Your task to perform on an android device: toggle priority inbox in the gmail app Image 0: 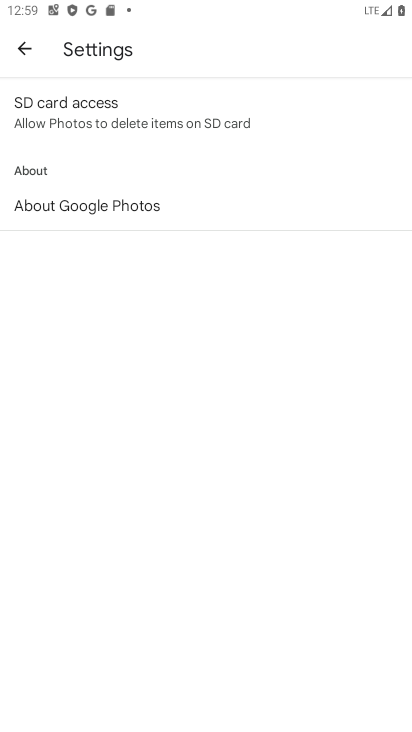
Step 0: press home button
Your task to perform on an android device: toggle priority inbox in the gmail app Image 1: 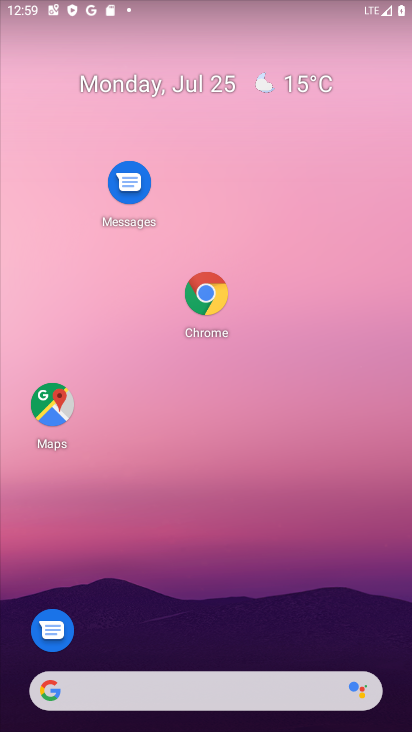
Step 1: drag from (287, 611) to (305, 58)
Your task to perform on an android device: toggle priority inbox in the gmail app Image 2: 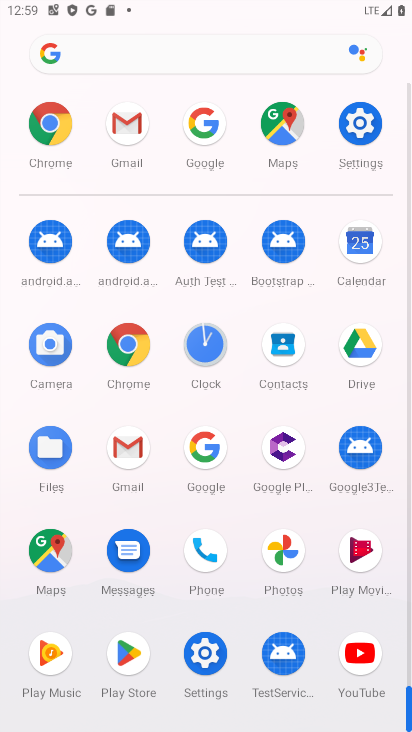
Step 2: click (134, 450)
Your task to perform on an android device: toggle priority inbox in the gmail app Image 3: 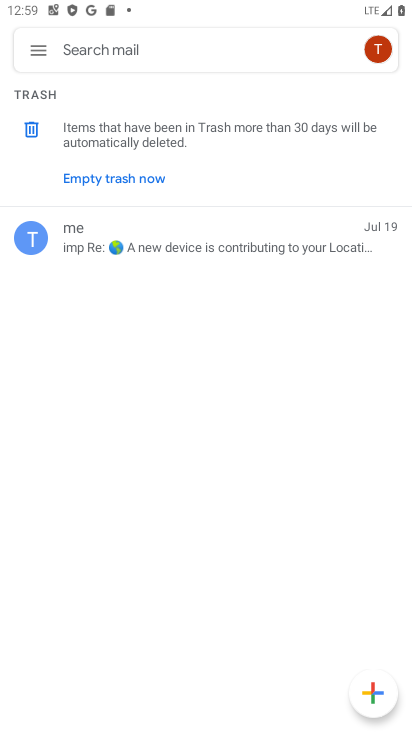
Step 3: click (42, 46)
Your task to perform on an android device: toggle priority inbox in the gmail app Image 4: 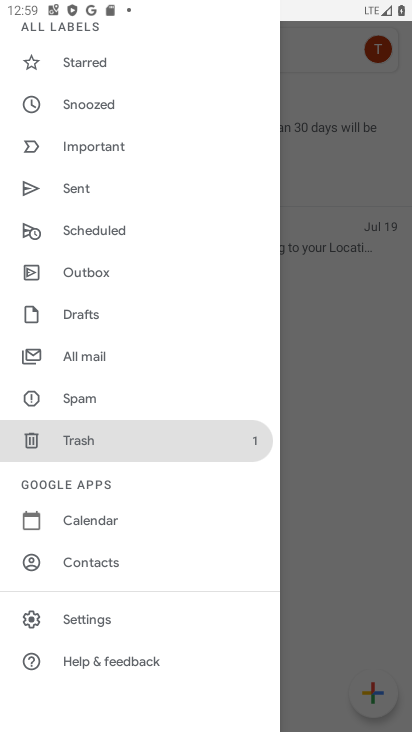
Step 4: click (83, 617)
Your task to perform on an android device: toggle priority inbox in the gmail app Image 5: 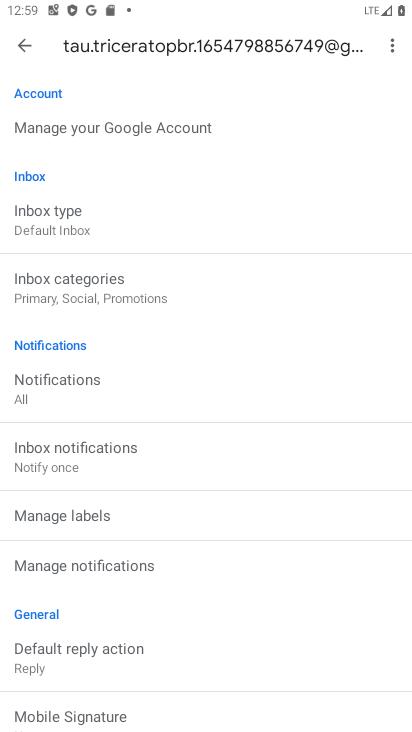
Step 5: drag from (184, 671) to (178, 398)
Your task to perform on an android device: toggle priority inbox in the gmail app Image 6: 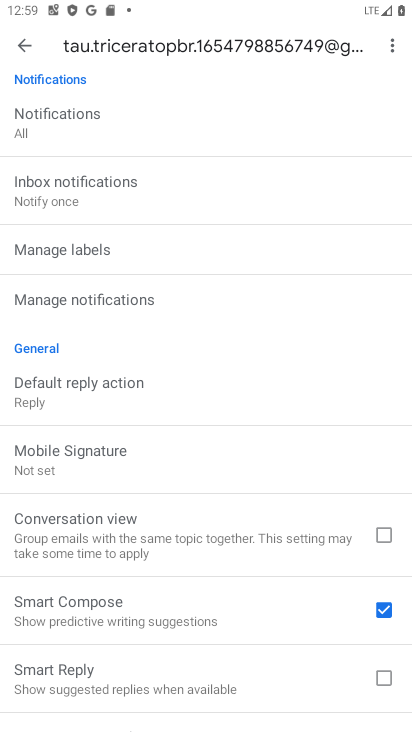
Step 6: drag from (209, 319) to (165, 696)
Your task to perform on an android device: toggle priority inbox in the gmail app Image 7: 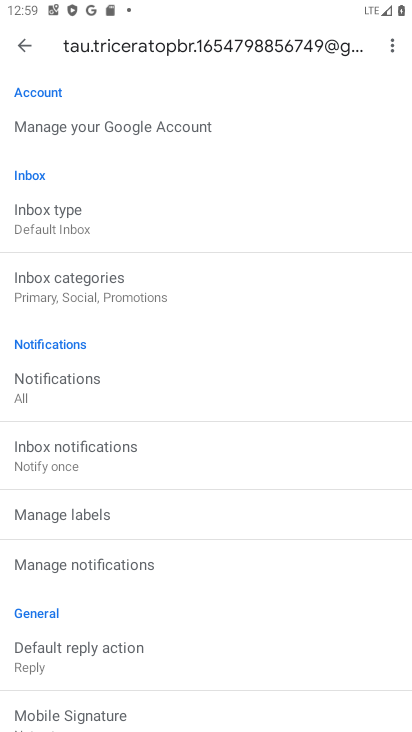
Step 7: click (34, 217)
Your task to perform on an android device: toggle priority inbox in the gmail app Image 8: 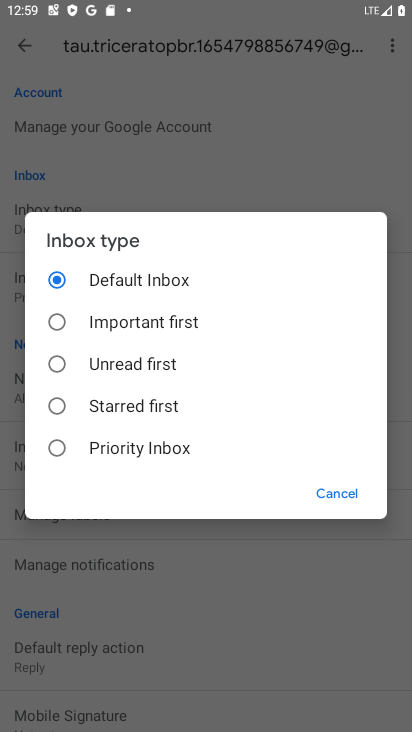
Step 8: click (180, 439)
Your task to perform on an android device: toggle priority inbox in the gmail app Image 9: 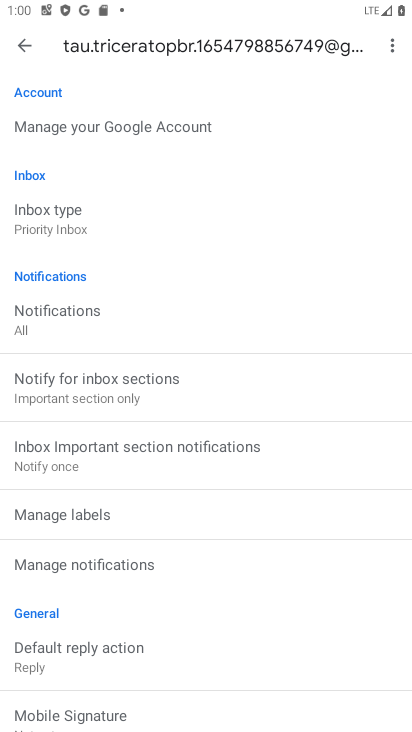
Step 9: task complete